Your task to perform on an android device: turn pop-ups off in chrome Image 0: 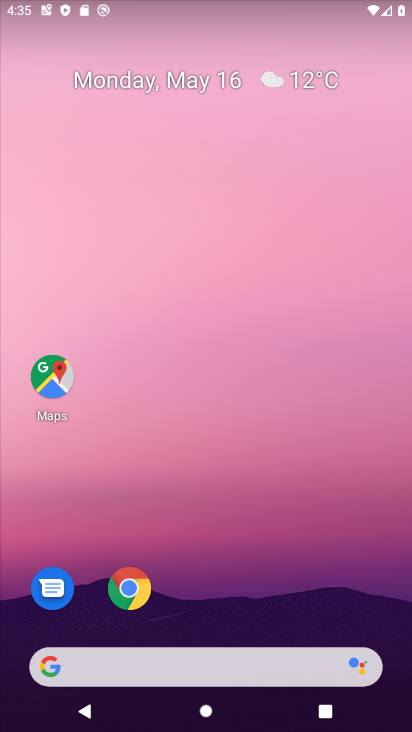
Step 0: click (129, 592)
Your task to perform on an android device: turn pop-ups off in chrome Image 1: 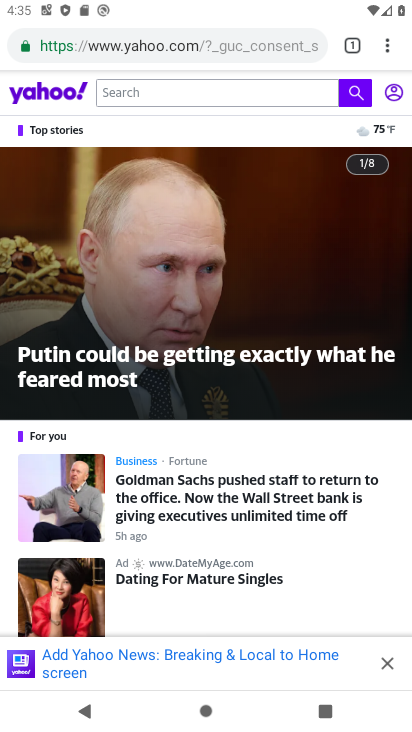
Step 1: drag from (399, 39) to (231, 588)
Your task to perform on an android device: turn pop-ups off in chrome Image 2: 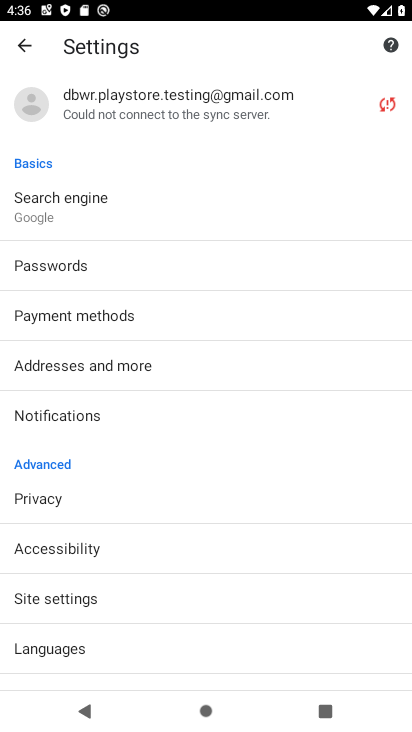
Step 2: drag from (98, 656) to (154, 386)
Your task to perform on an android device: turn pop-ups off in chrome Image 3: 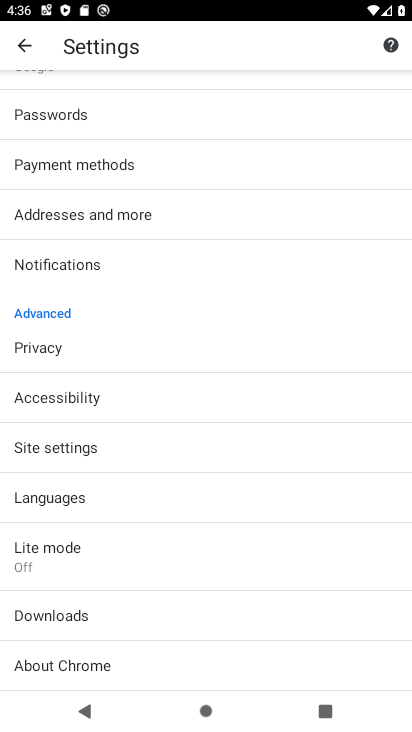
Step 3: click (100, 447)
Your task to perform on an android device: turn pop-ups off in chrome Image 4: 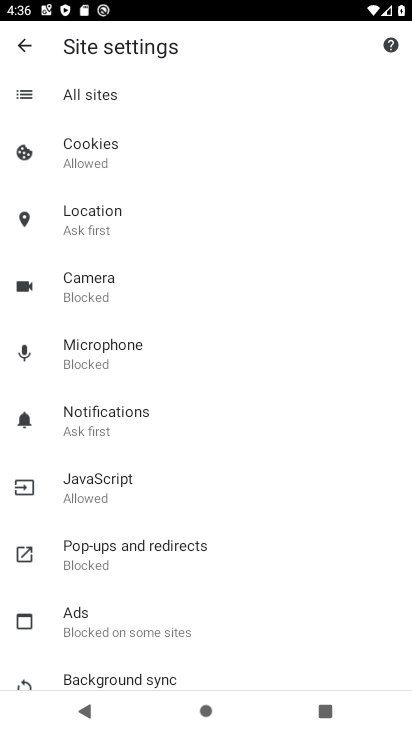
Step 4: click (121, 530)
Your task to perform on an android device: turn pop-ups off in chrome Image 5: 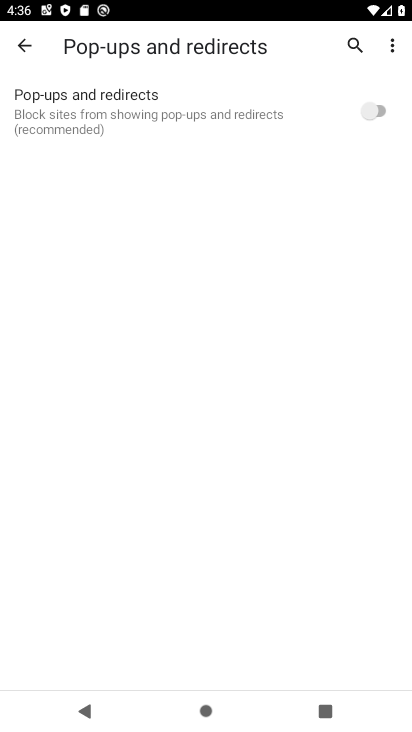
Step 5: task complete